Your task to perform on an android device: When is my next meeting? Image 0: 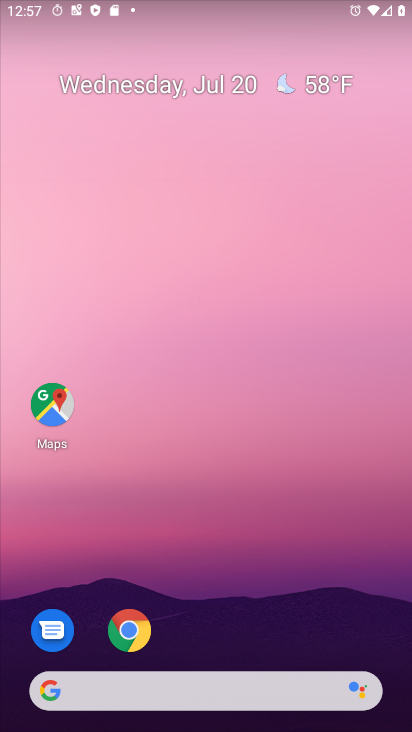
Step 0: press home button
Your task to perform on an android device: When is my next meeting? Image 1: 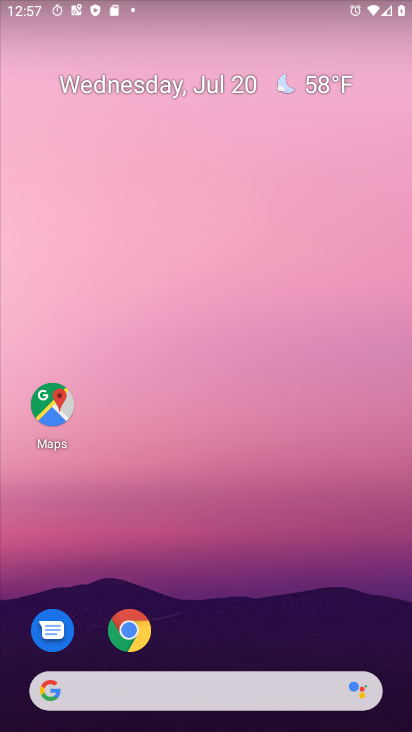
Step 1: drag from (167, 690) to (204, 228)
Your task to perform on an android device: When is my next meeting? Image 2: 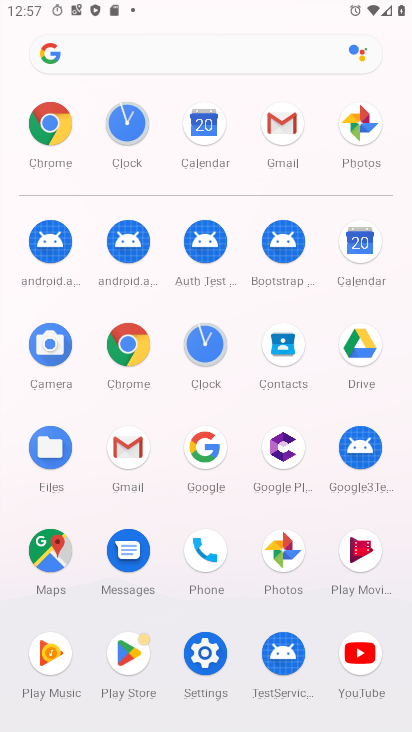
Step 2: click (354, 243)
Your task to perform on an android device: When is my next meeting? Image 3: 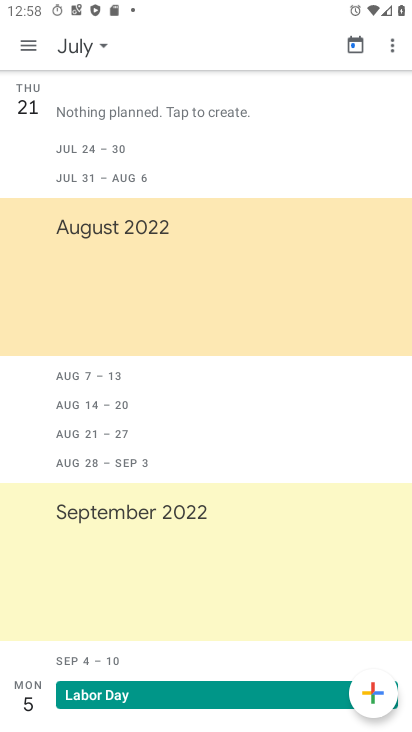
Step 3: task complete